Your task to perform on an android device: toggle notification dots Image 0: 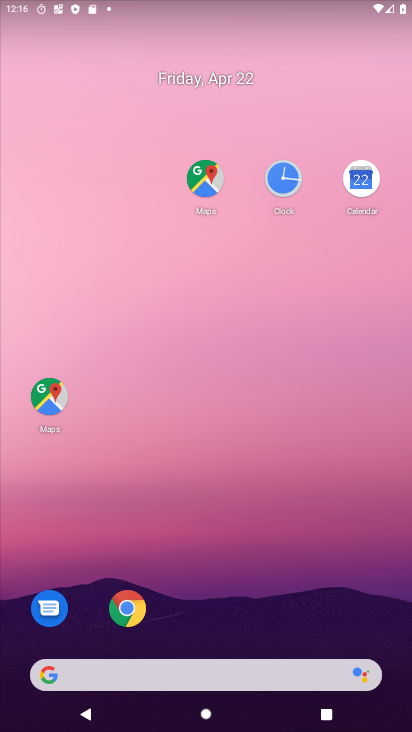
Step 0: drag from (273, 629) to (183, 141)
Your task to perform on an android device: toggle notification dots Image 1: 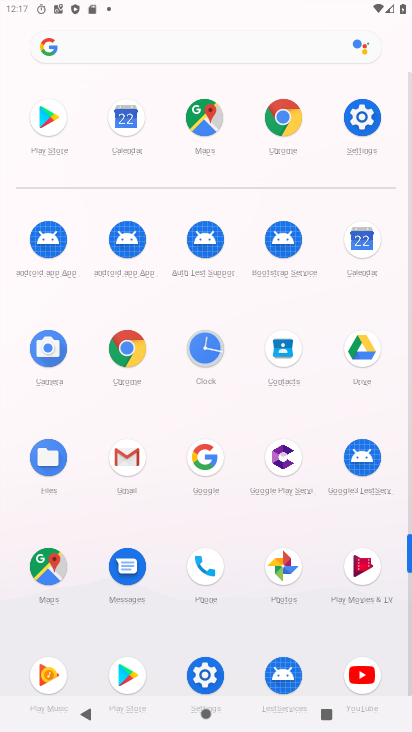
Step 1: click (370, 118)
Your task to perform on an android device: toggle notification dots Image 2: 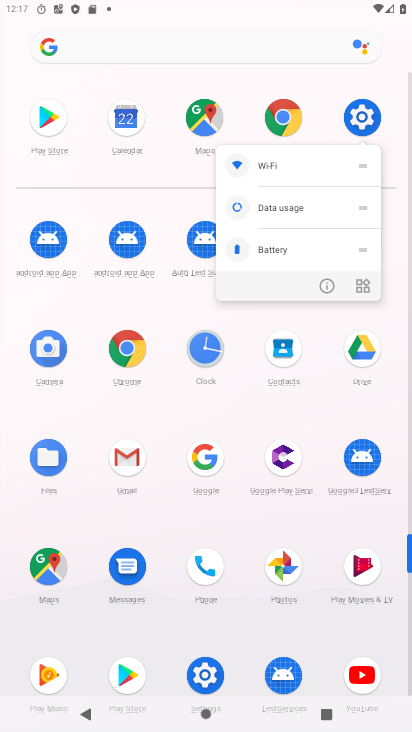
Step 2: click (368, 120)
Your task to perform on an android device: toggle notification dots Image 3: 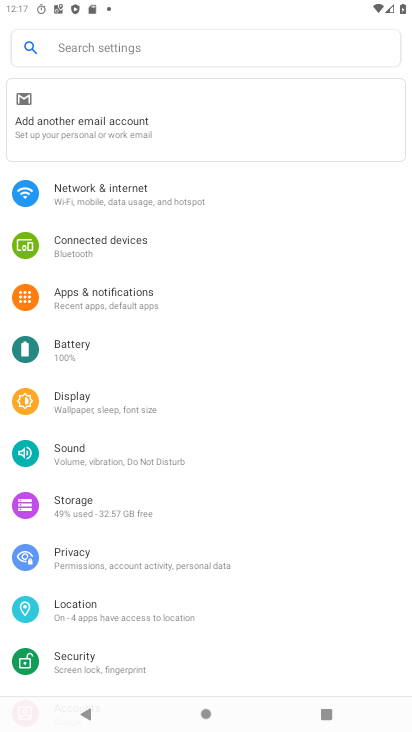
Step 3: click (96, 299)
Your task to perform on an android device: toggle notification dots Image 4: 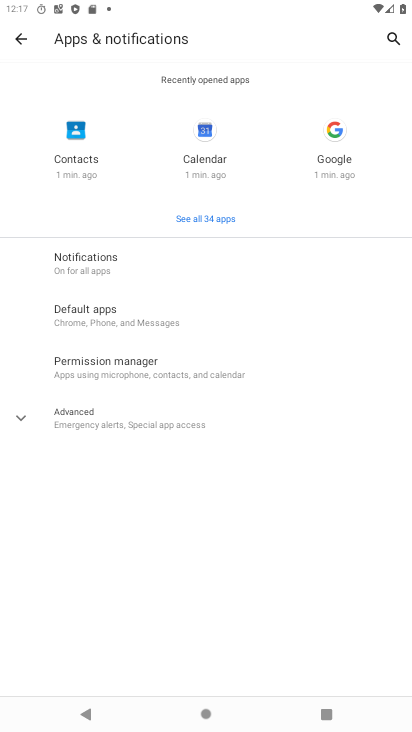
Step 4: click (16, 44)
Your task to perform on an android device: toggle notification dots Image 5: 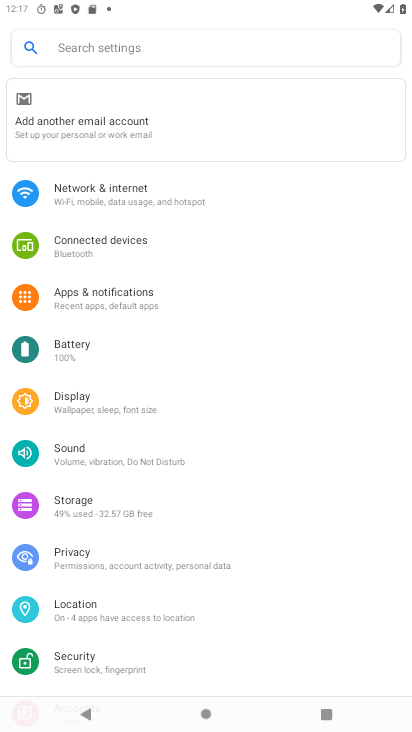
Step 5: click (123, 293)
Your task to perform on an android device: toggle notification dots Image 6: 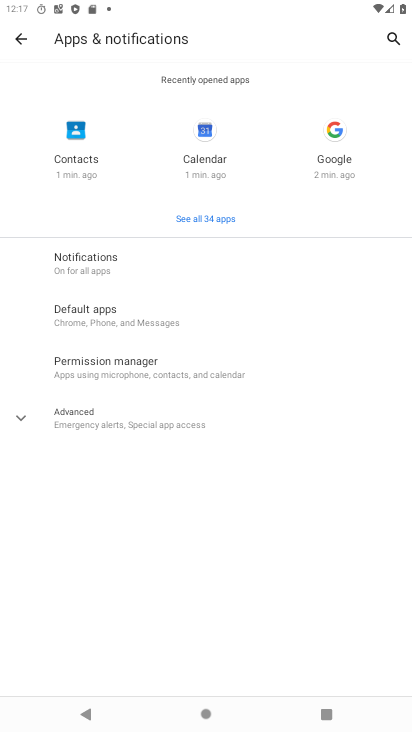
Step 6: click (87, 261)
Your task to perform on an android device: toggle notification dots Image 7: 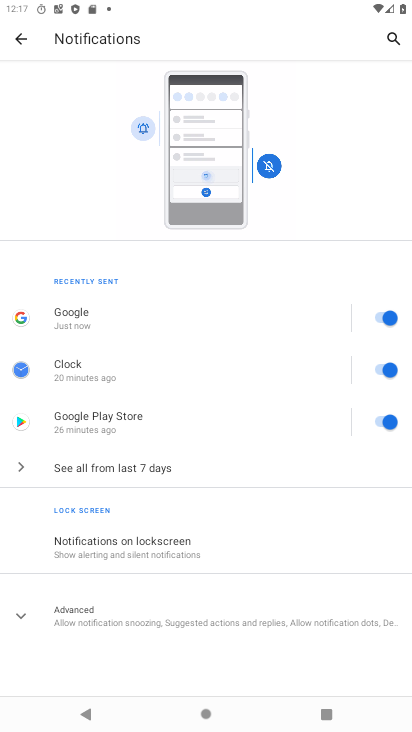
Step 7: drag from (235, 315) to (232, 199)
Your task to perform on an android device: toggle notification dots Image 8: 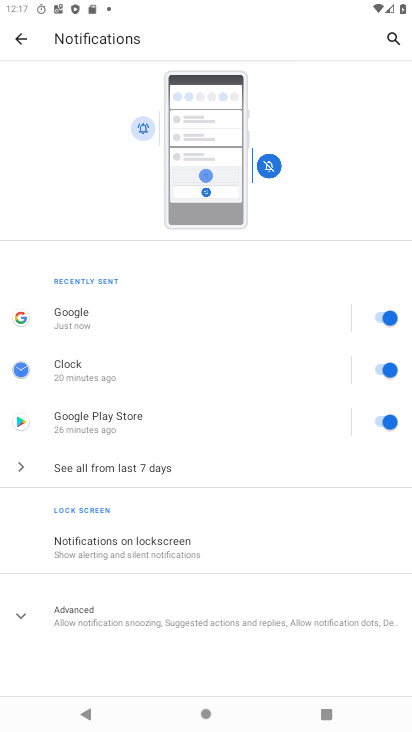
Step 8: drag from (256, 411) to (247, 119)
Your task to perform on an android device: toggle notification dots Image 9: 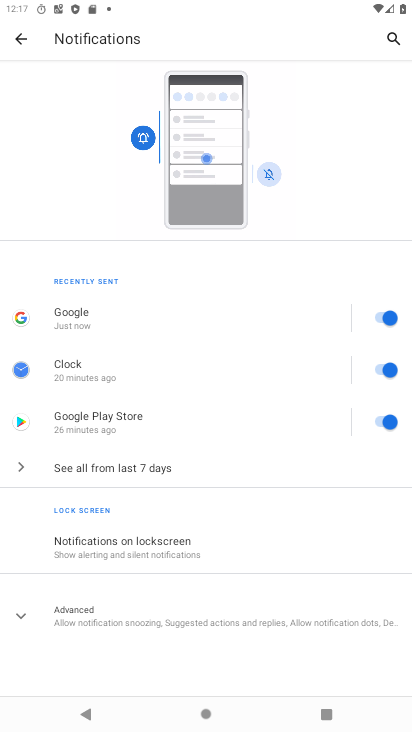
Step 9: drag from (213, 481) to (215, 162)
Your task to perform on an android device: toggle notification dots Image 10: 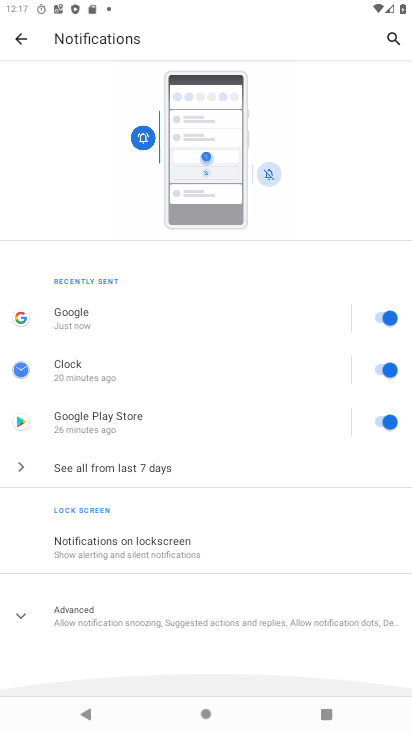
Step 10: drag from (258, 229) to (258, 18)
Your task to perform on an android device: toggle notification dots Image 11: 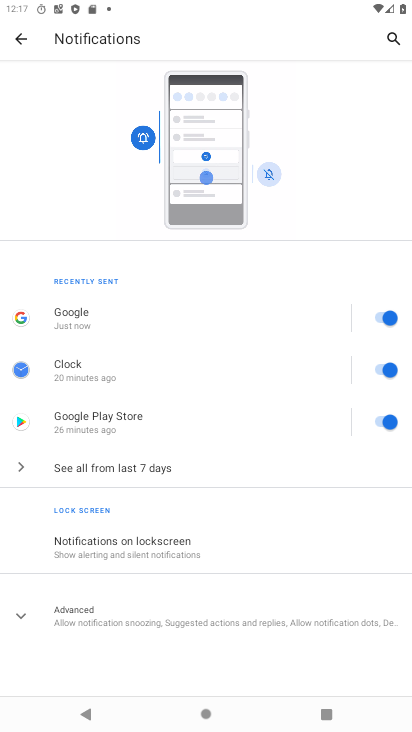
Step 11: drag from (257, 453) to (234, 67)
Your task to perform on an android device: toggle notification dots Image 12: 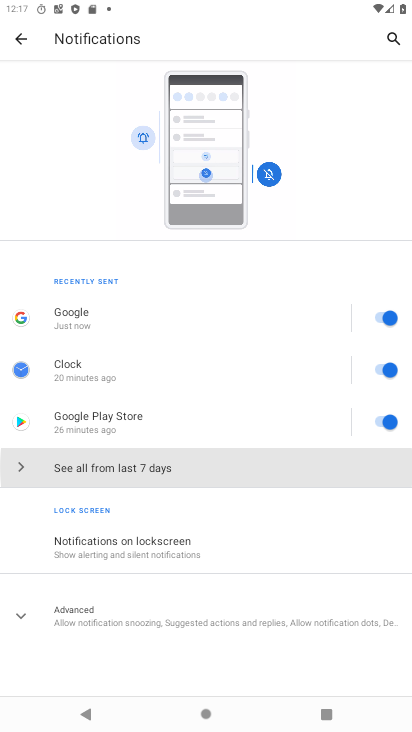
Step 12: drag from (282, 468) to (281, 114)
Your task to perform on an android device: toggle notification dots Image 13: 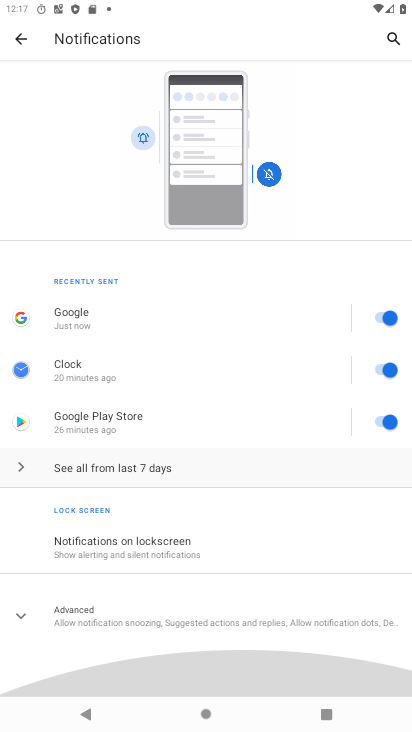
Step 13: drag from (306, 249) to (310, 61)
Your task to perform on an android device: toggle notification dots Image 14: 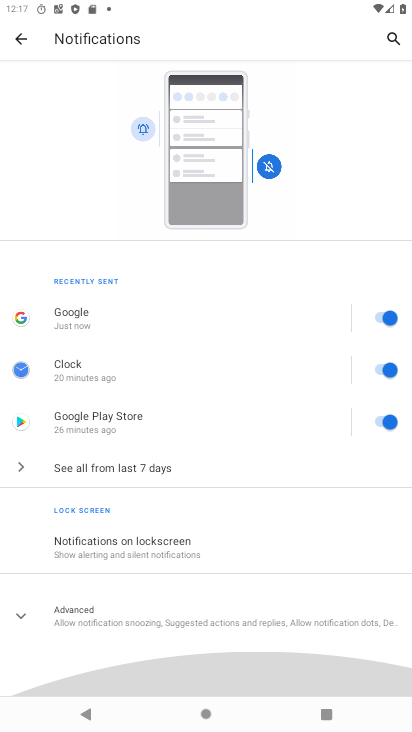
Step 14: drag from (307, 474) to (307, 192)
Your task to perform on an android device: toggle notification dots Image 15: 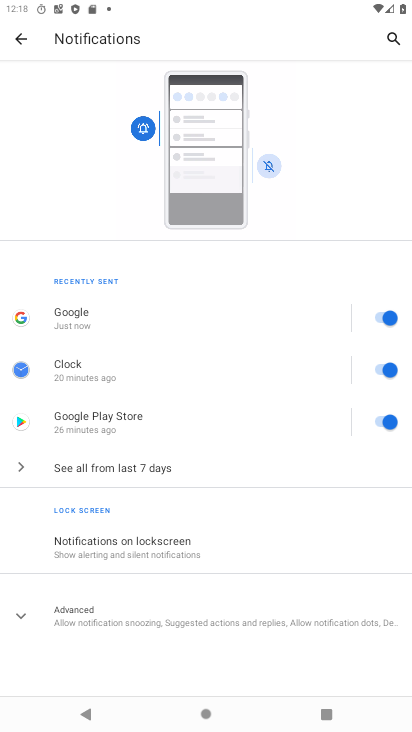
Step 15: click (112, 537)
Your task to perform on an android device: toggle notification dots Image 16: 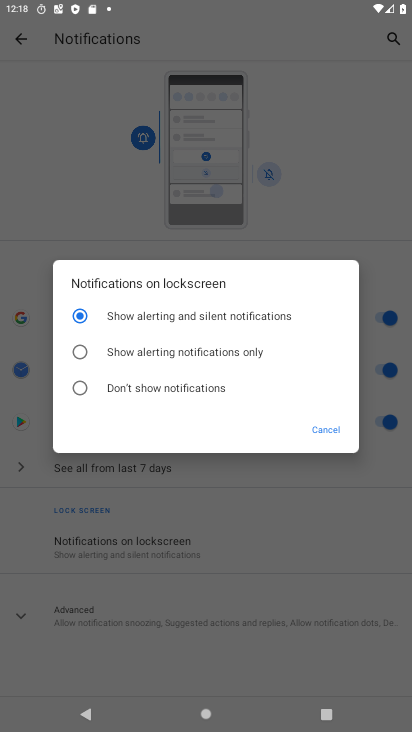
Step 16: click (323, 432)
Your task to perform on an android device: toggle notification dots Image 17: 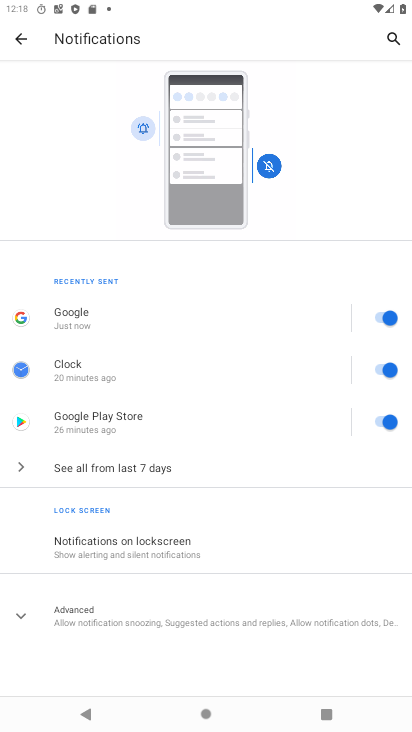
Step 17: click (197, 623)
Your task to perform on an android device: toggle notification dots Image 18: 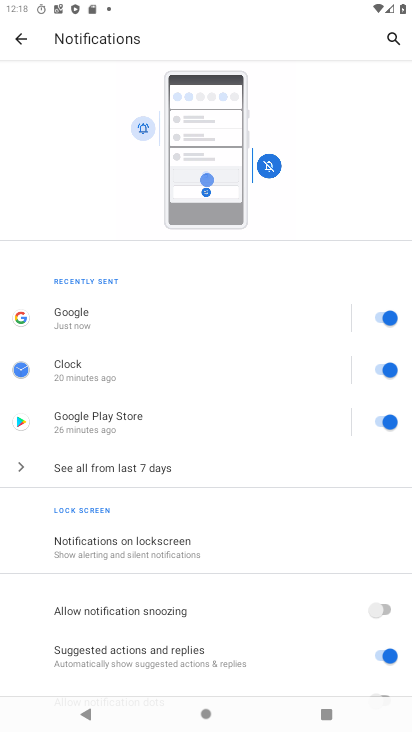
Step 18: drag from (234, 494) to (218, 160)
Your task to perform on an android device: toggle notification dots Image 19: 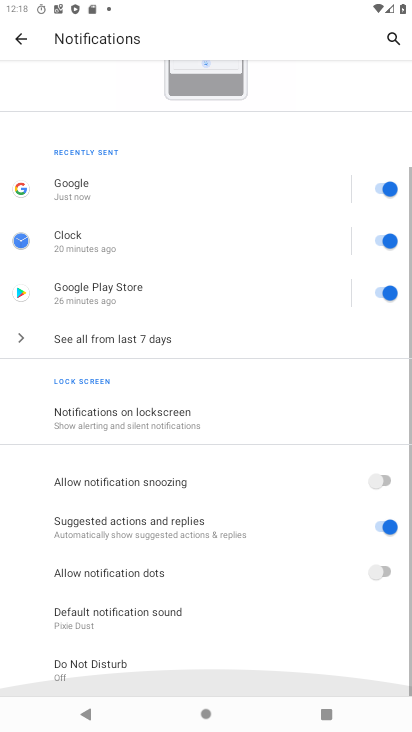
Step 19: drag from (203, 255) to (203, 151)
Your task to perform on an android device: toggle notification dots Image 20: 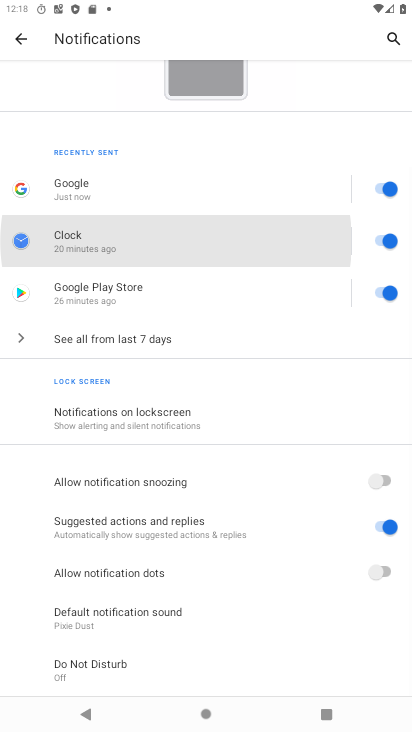
Step 20: drag from (246, 342) to (219, 93)
Your task to perform on an android device: toggle notification dots Image 21: 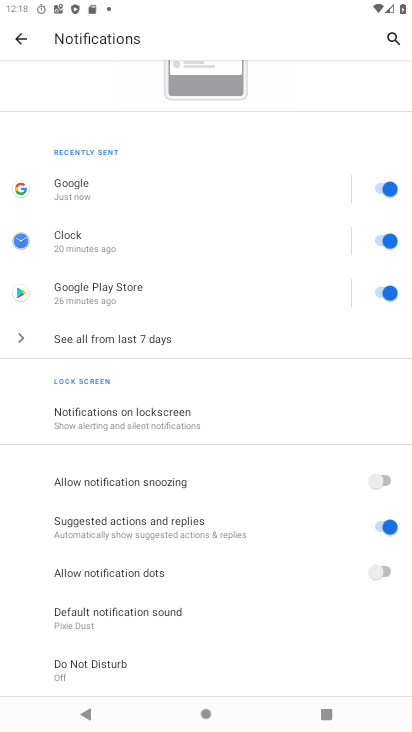
Step 21: click (373, 572)
Your task to perform on an android device: toggle notification dots Image 22: 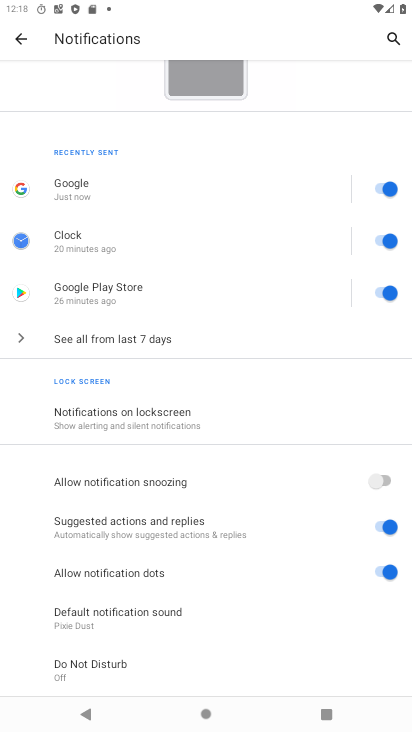
Step 22: task complete